Your task to perform on an android device: Turn on the flashlight Image 0: 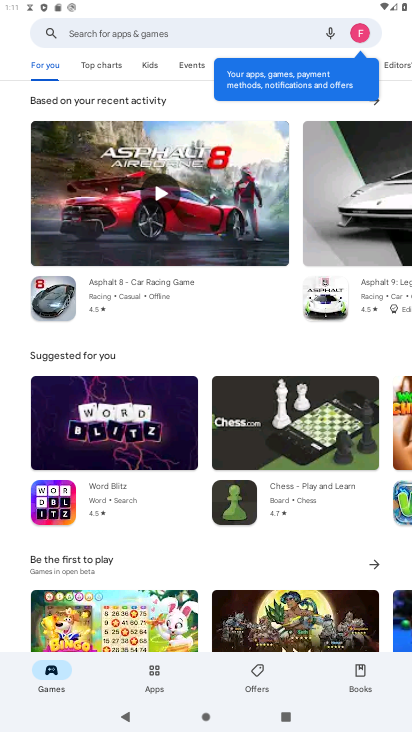
Step 0: press home button
Your task to perform on an android device: Turn on the flashlight Image 1: 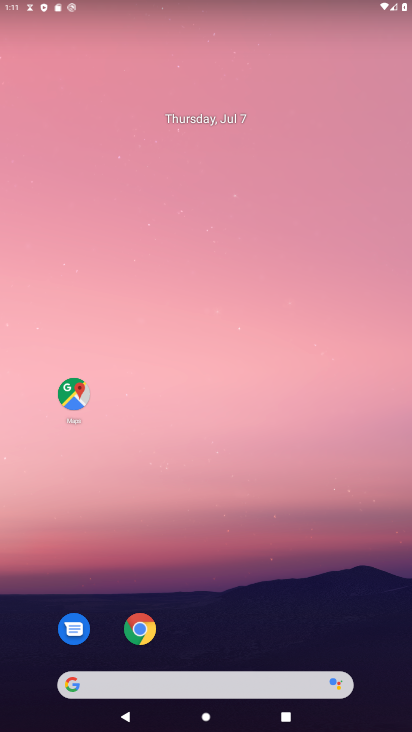
Step 1: drag from (260, 594) to (296, 30)
Your task to perform on an android device: Turn on the flashlight Image 2: 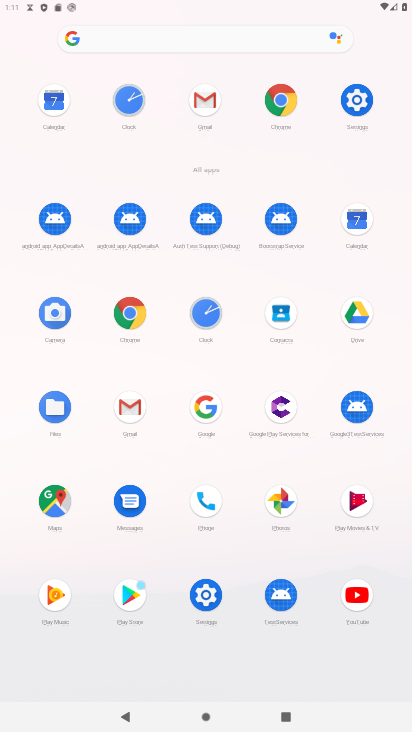
Step 2: click (364, 101)
Your task to perform on an android device: Turn on the flashlight Image 3: 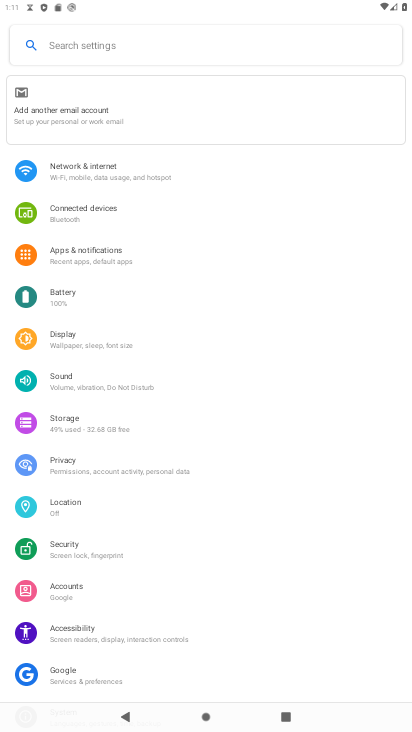
Step 3: click (161, 36)
Your task to perform on an android device: Turn on the flashlight Image 4: 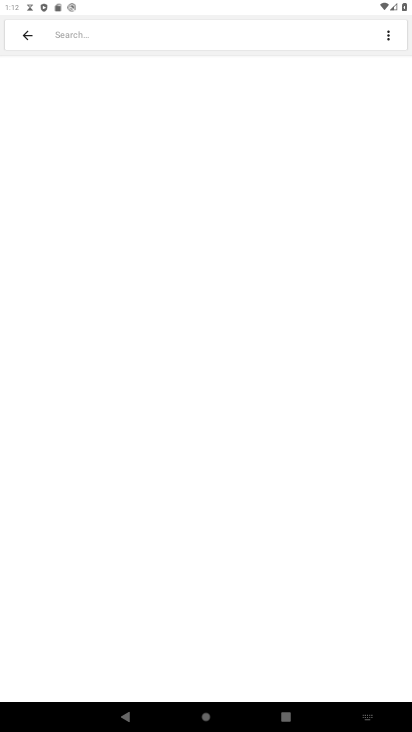
Step 4: type "flashlight"
Your task to perform on an android device: Turn on the flashlight Image 5: 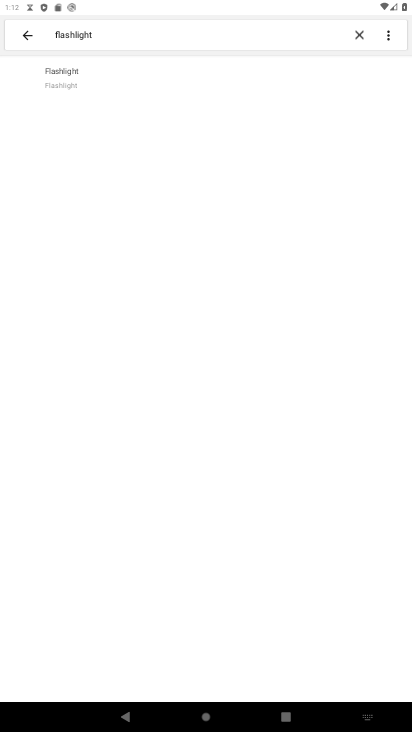
Step 5: click (168, 108)
Your task to perform on an android device: Turn on the flashlight Image 6: 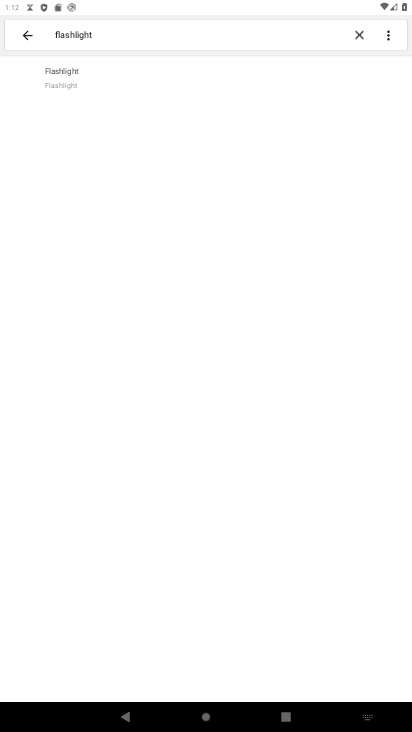
Step 6: click (155, 76)
Your task to perform on an android device: Turn on the flashlight Image 7: 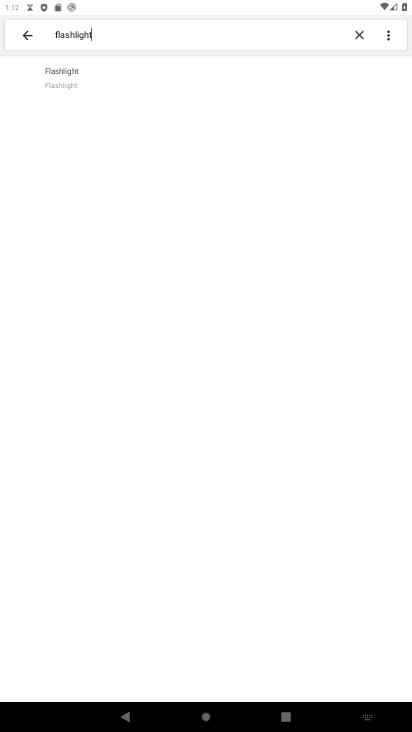
Step 7: click (156, 77)
Your task to perform on an android device: Turn on the flashlight Image 8: 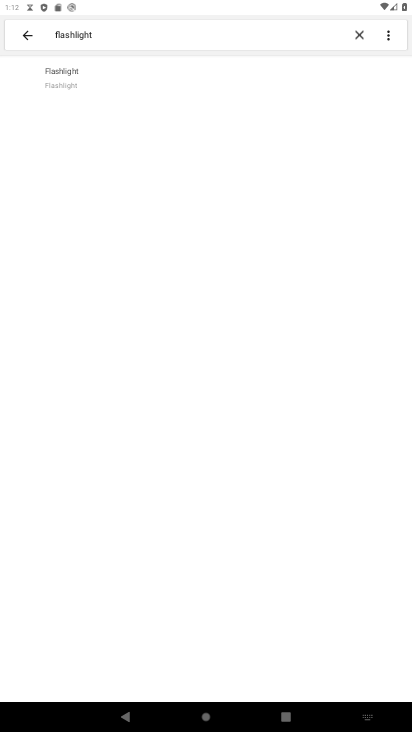
Step 8: task complete